Your task to perform on an android device: What's on my calendar today? Image 0: 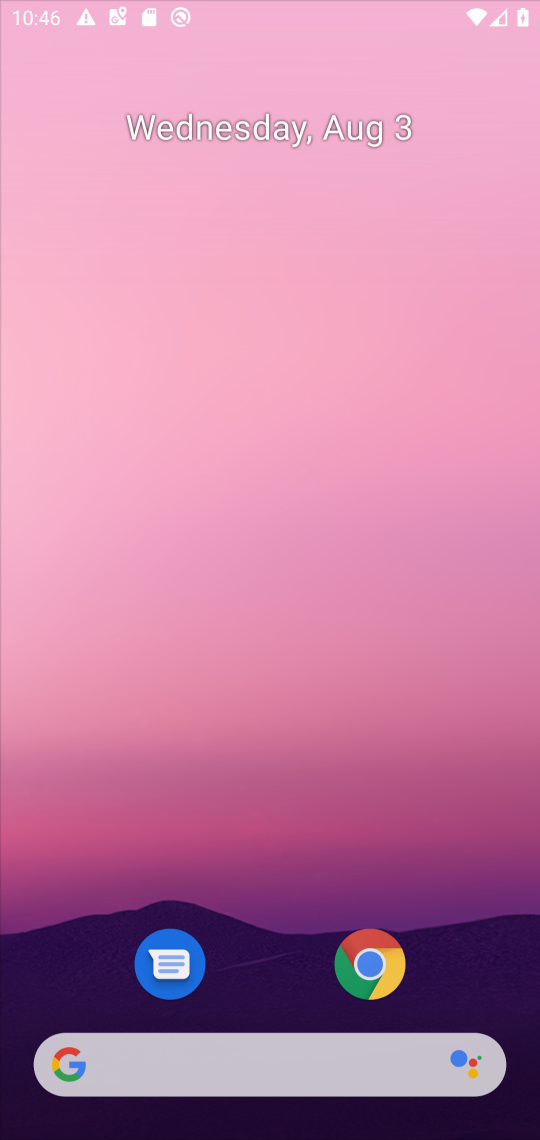
Step 0: press home button
Your task to perform on an android device: What's on my calendar today? Image 1: 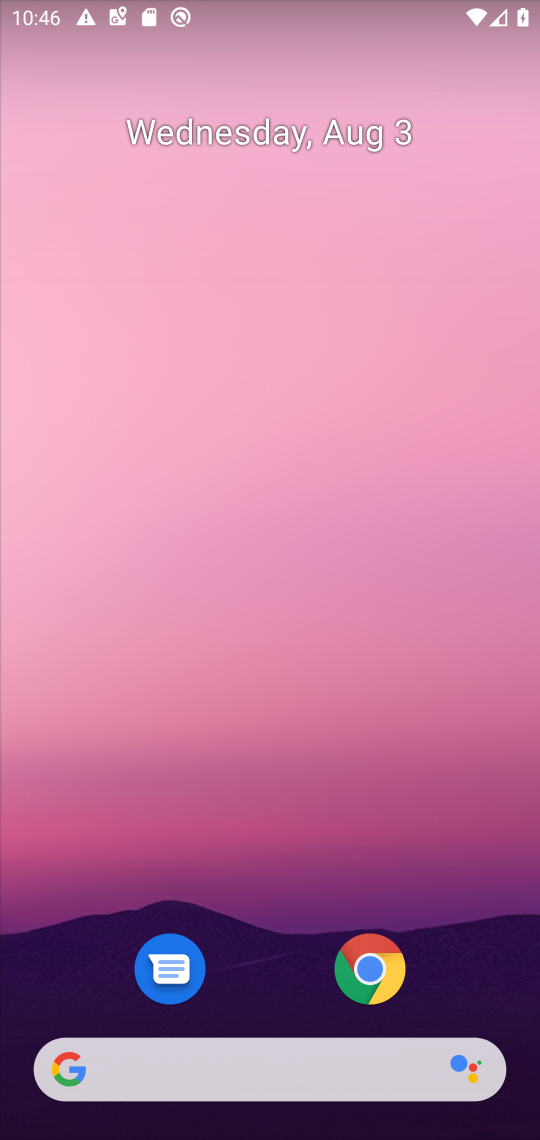
Step 1: press back button
Your task to perform on an android device: What's on my calendar today? Image 2: 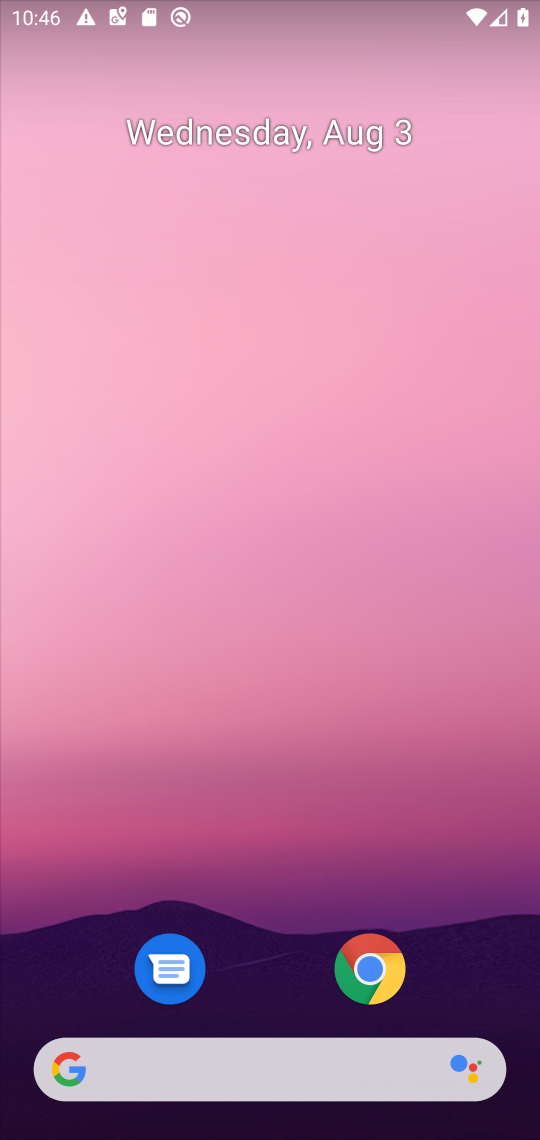
Step 2: drag from (263, 980) to (96, 88)
Your task to perform on an android device: What's on my calendar today? Image 3: 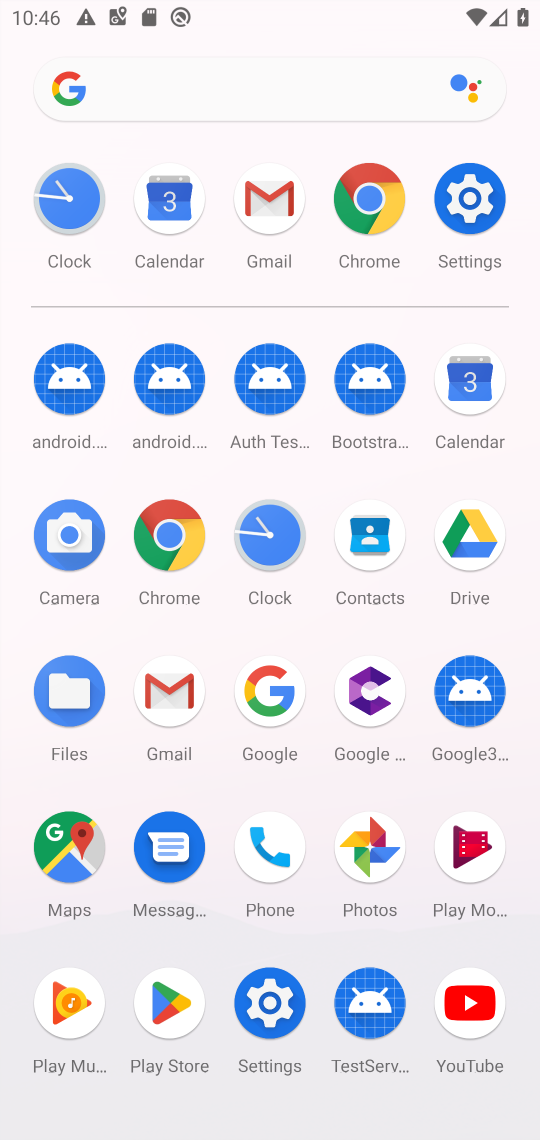
Step 3: click (464, 413)
Your task to perform on an android device: What's on my calendar today? Image 4: 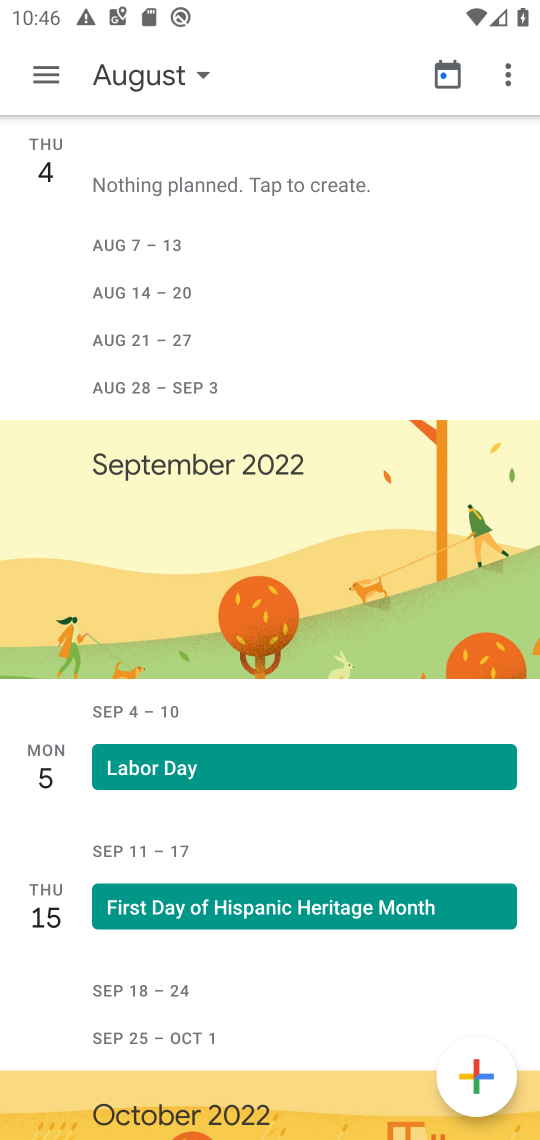
Step 4: click (438, 60)
Your task to perform on an android device: What's on my calendar today? Image 5: 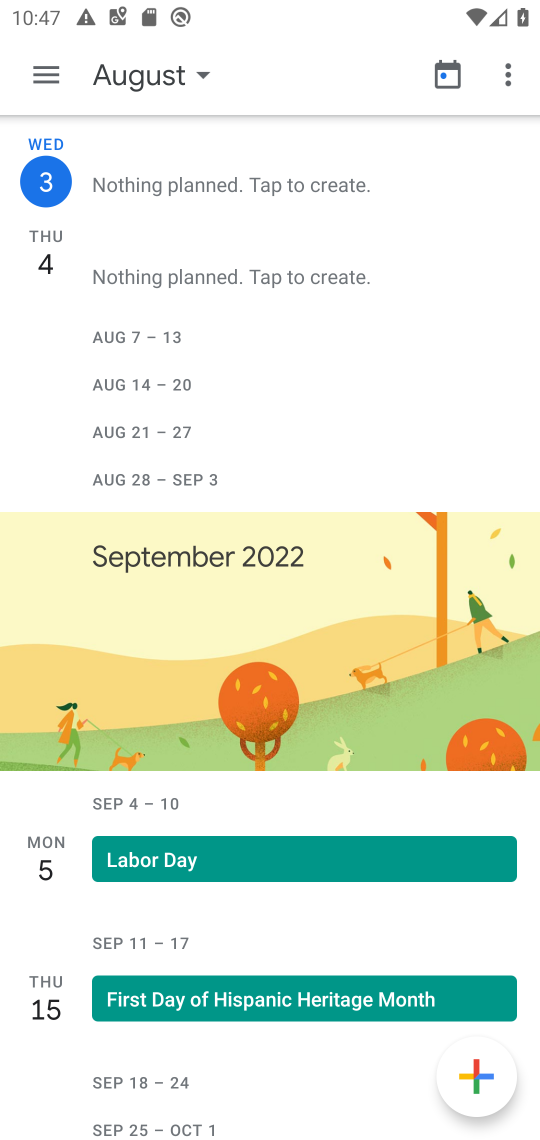
Step 5: click (71, 182)
Your task to perform on an android device: What's on my calendar today? Image 6: 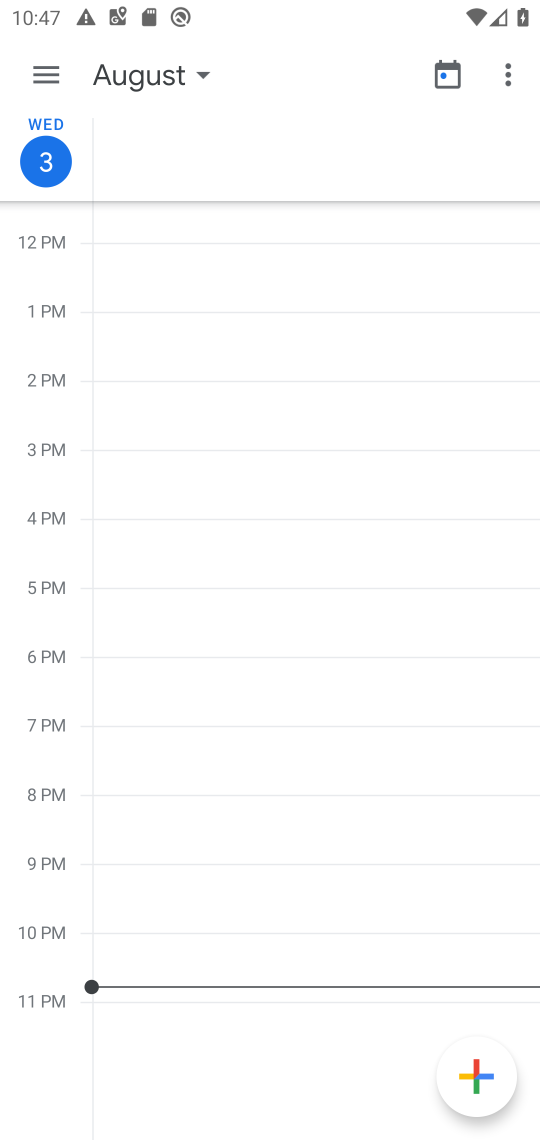
Step 6: task complete